Your task to perform on an android device: see tabs open on other devices in the chrome app Image 0: 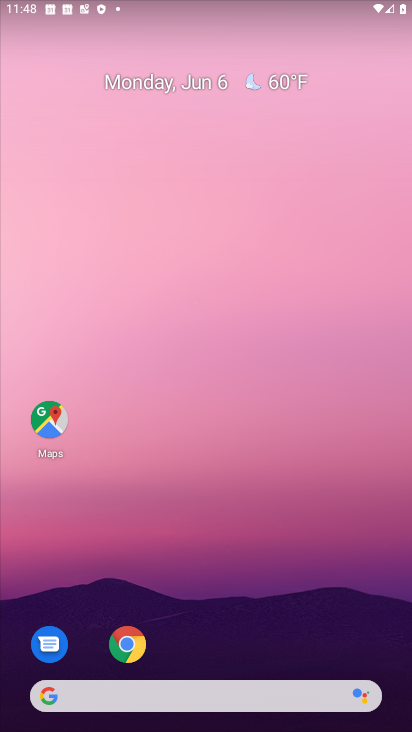
Step 0: drag from (195, 561) to (258, 213)
Your task to perform on an android device: see tabs open on other devices in the chrome app Image 1: 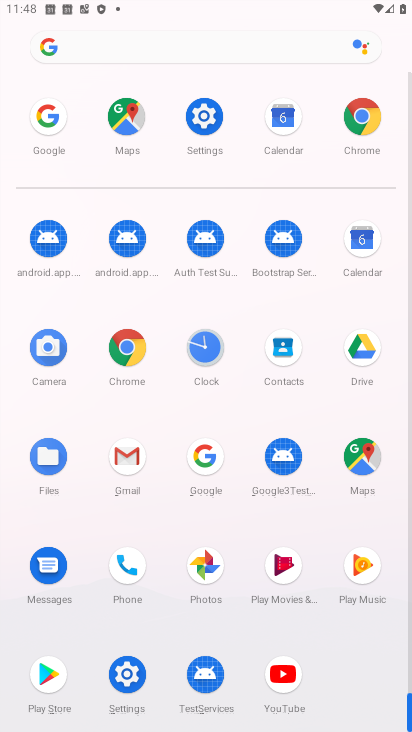
Step 1: click (369, 134)
Your task to perform on an android device: see tabs open on other devices in the chrome app Image 2: 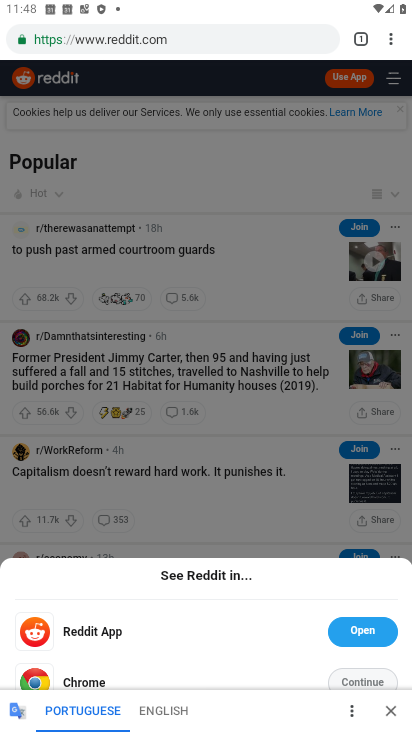
Step 2: task complete